Your task to perform on an android device: turn on bluetooth scan Image 0: 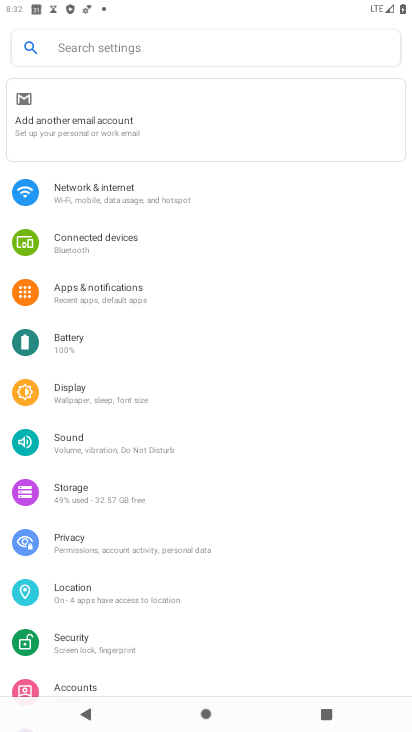
Step 0: press home button
Your task to perform on an android device: turn on bluetooth scan Image 1: 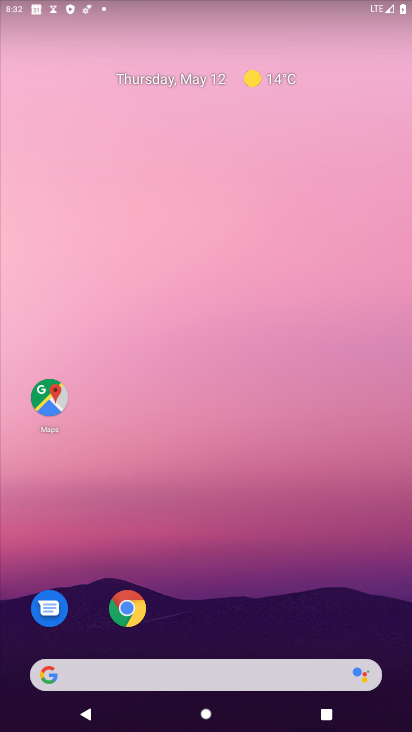
Step 1: drag from (235, 633) to (238, 220)
Your task to perform on an android device: turn on bluetooth scan Image 2: 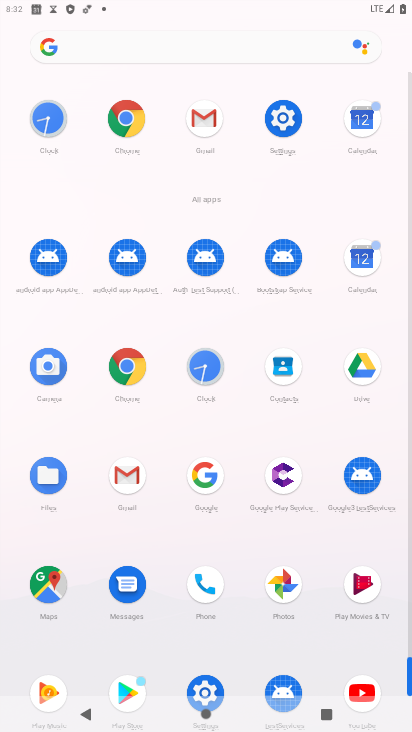
Step 2: click (275, 118)
Your task to perform on an android device: turn on bluetooth scan Image 3: 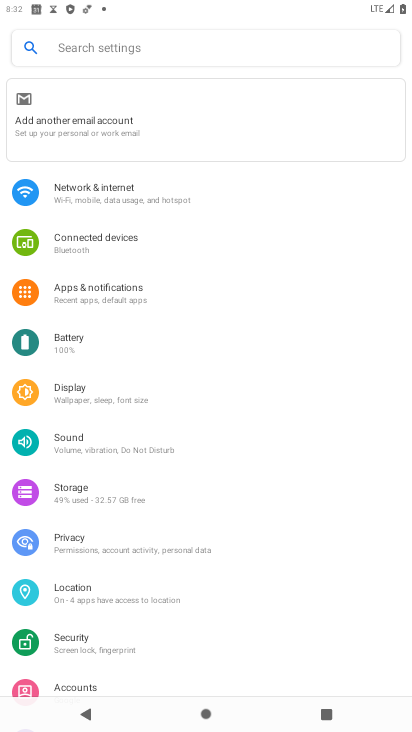
Step 3: click (84, 548)
Your task to perform on an android device: turn on bluetooth scan Image 4: 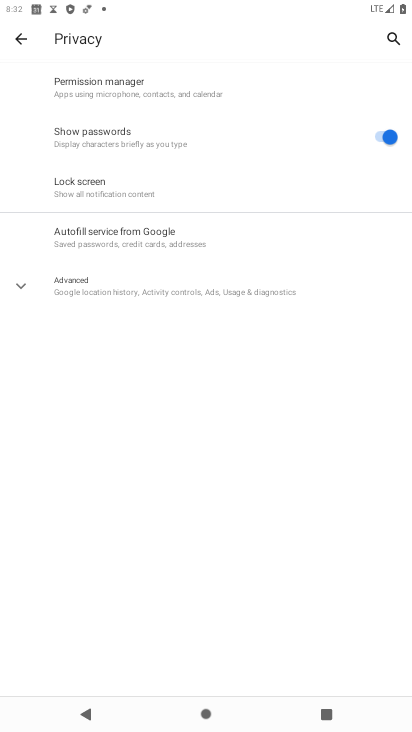
Step 4: click (111, 288)
Your task to perform on an android device: turn on bluetooth scan Image 5: 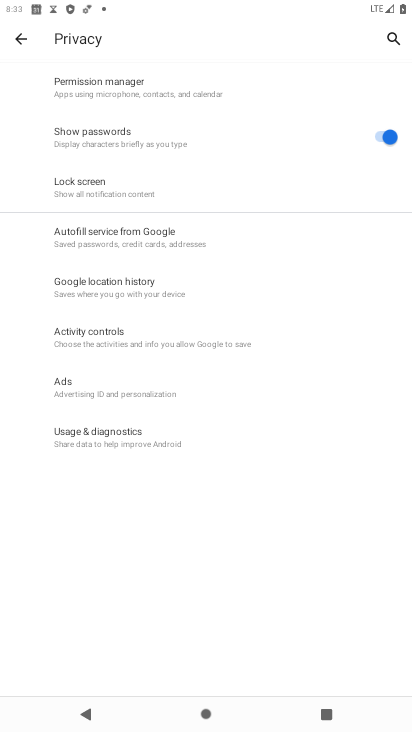
Step 5: click (13, 34)
Your task to perform on an android device: turn on bluetooth scan Image 6: 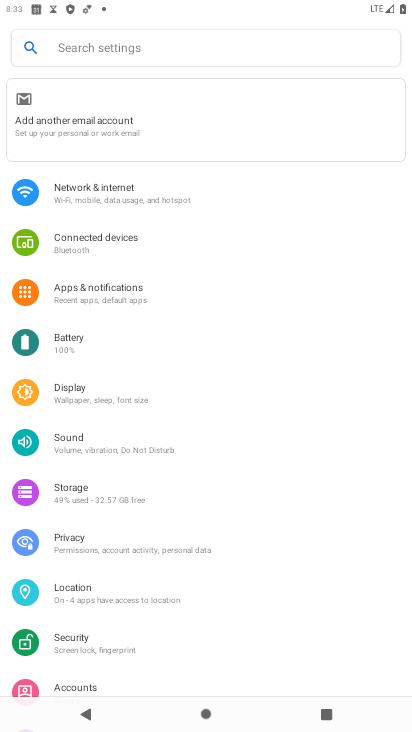
Step 6: click (73, 599)
Your task to perform on an android device: turn on bluetooth scan Image 7: 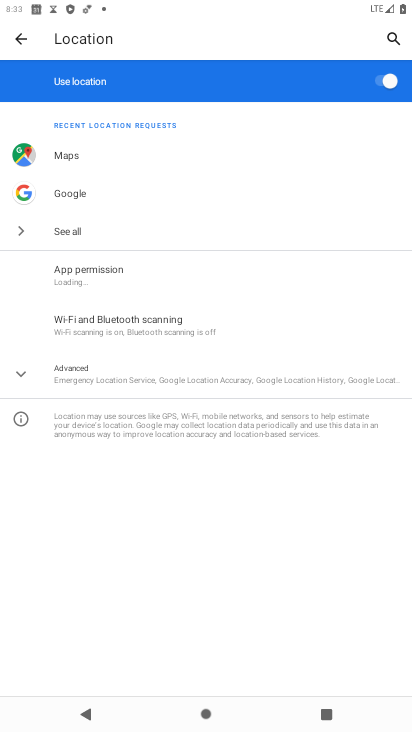
Step 7: click (100, 325)
Your task to perform on an android device: turn on bluetooth scan Image 8: 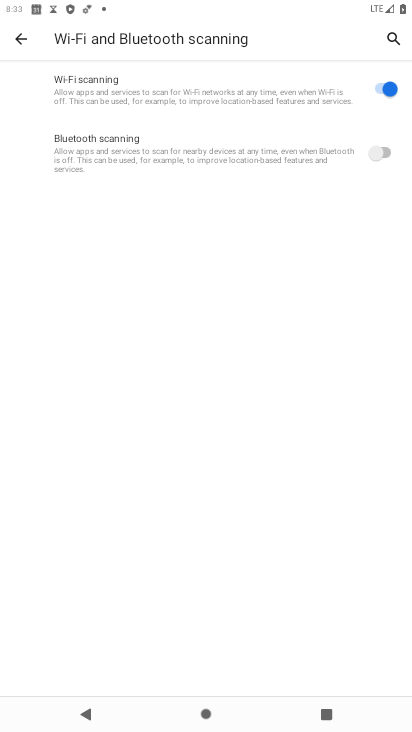
Step 8: click (384, 154)
Your task to perform on an android device: turn on bluetooth scan Image 9: 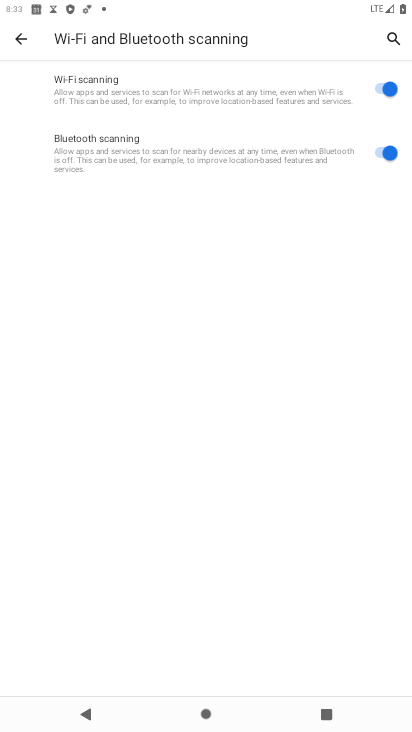
Step 9: task complete